Your task to perform on an android device: When is my next appointment? Image 0: 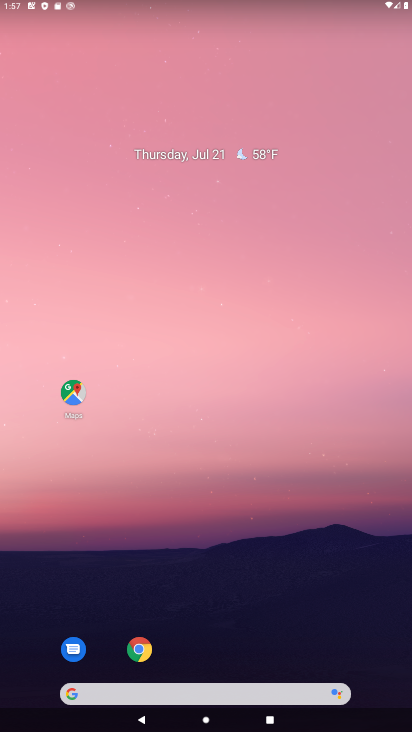
Step 0: drag from (238, 619) to (164, 85)
Your task to perform on an android device: When is my next appointment? Image 1: 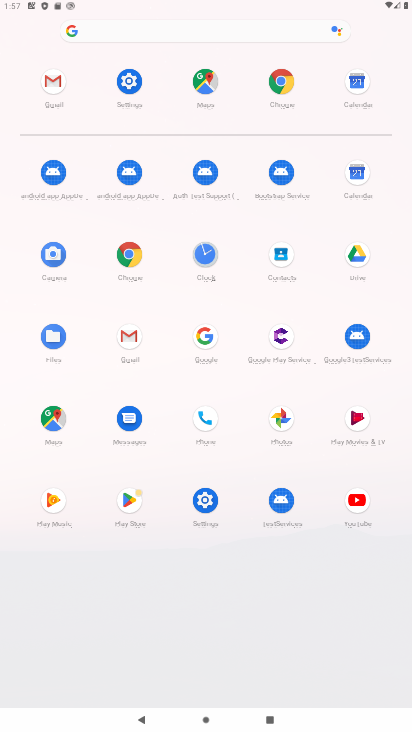
Step 1: click (362, 99)
Your task to perform on an android device: When is my next appointment? Image 2: 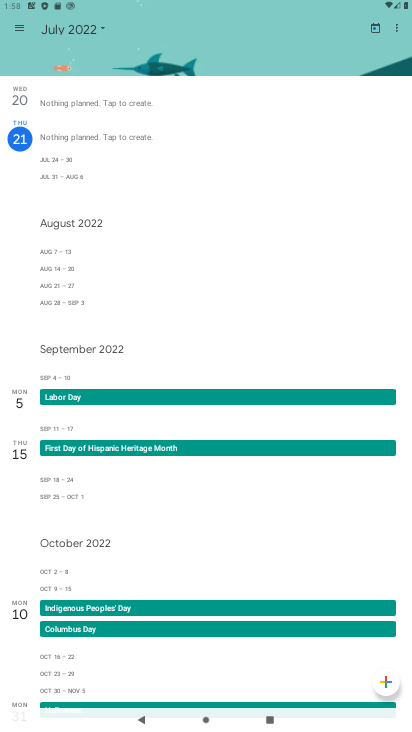
Step 2: task complete